Your task to perform on an android device: toggle translation in the chrome app Image 0: 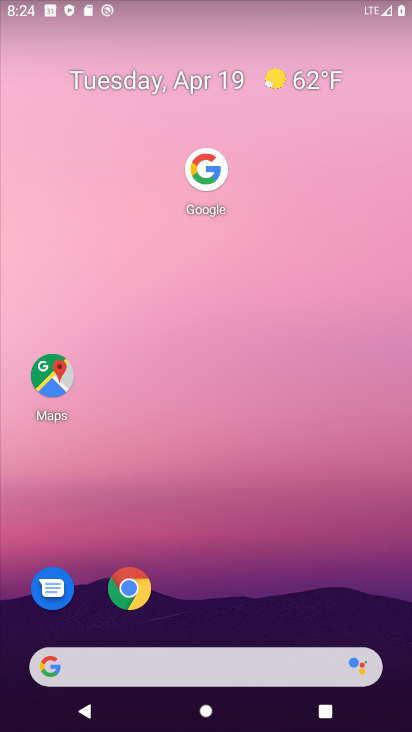
Step 0: click (136, 586)
Your task to perform on an android device: toggle translation in the chrome app Image 1: 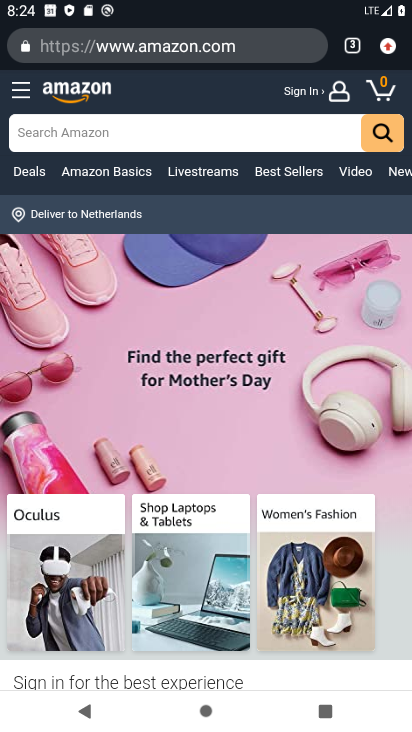
Step 1: click (390, 45)
Your task to perform on an android device: toggle translation in the chrome app Image 2: 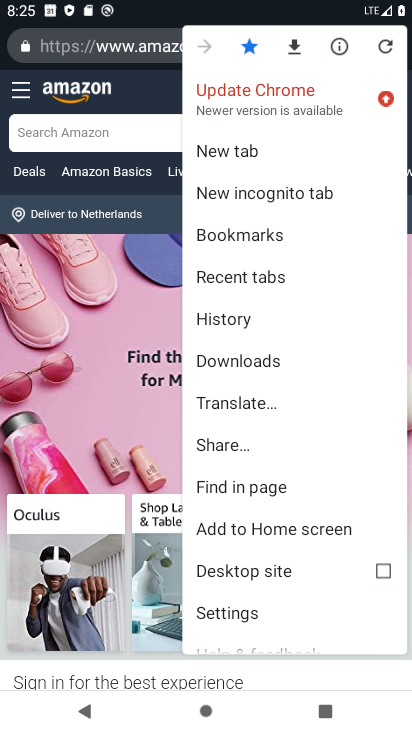
Step 2: click (233, 617)
Your task to perform on an android device: toggle translation in the chrome app Image 3: 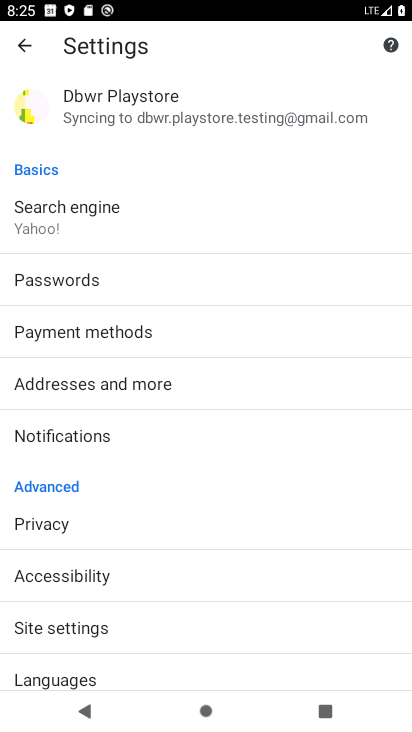
Step 3: click (75, 678)
Your task to perform on an android device: toggle translation in the chrome app Image 4: 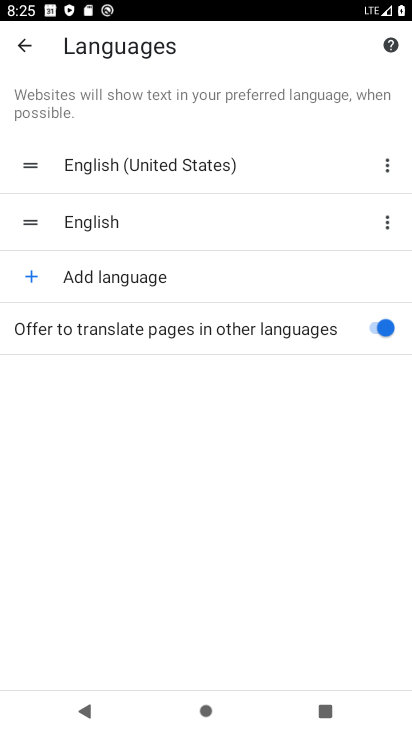
Step 4: click (382, 333)
Your task to perform on an android device: toggle translation in the chrome app Image 5: 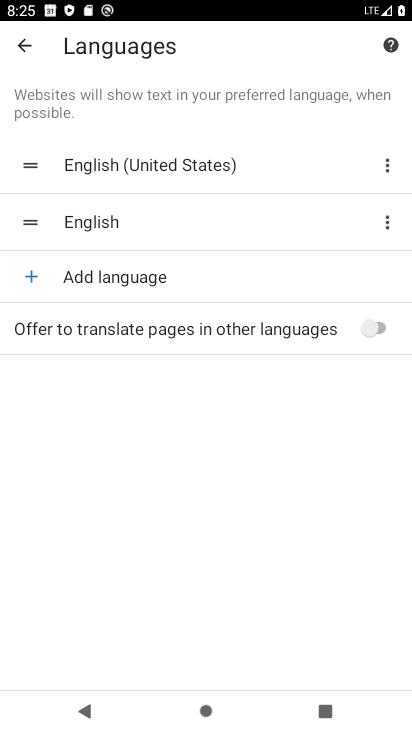
Step 5: task complete